Your task to perform on an android device: set the timer Image 0: 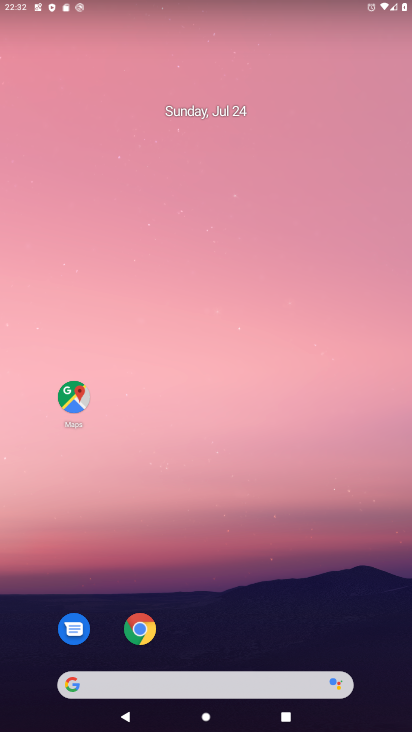
Step 0: click (203, 352)
Your task to perform on an android device: set the timer Image 1: 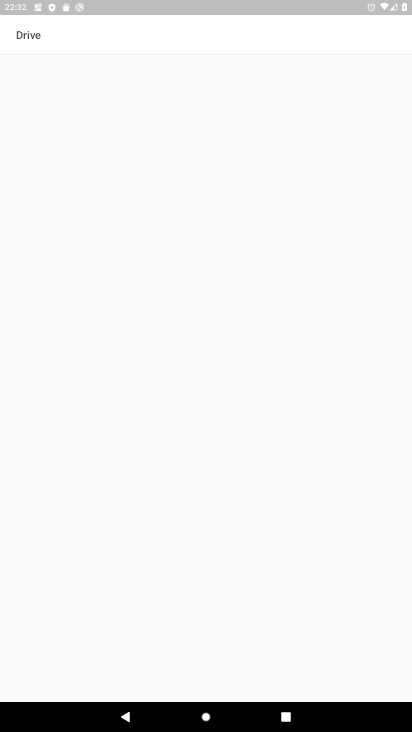
Step 1: press home button
Your task to perform on an android device: set the timer Image 2: 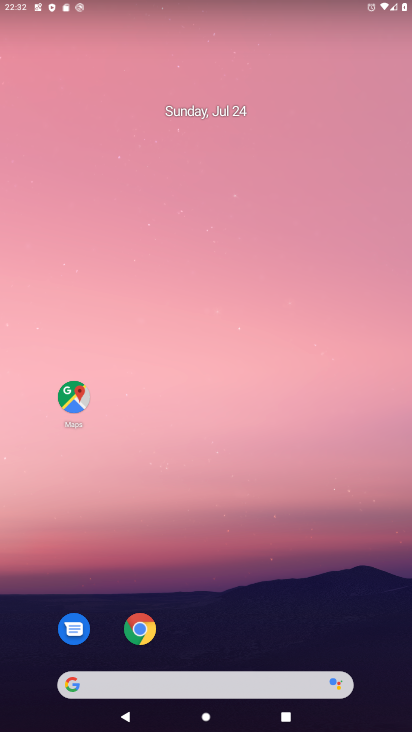
Step 2: drag from (191, 628) to (313, 93)
Your task to perform on an android device: set the timer Image 3: 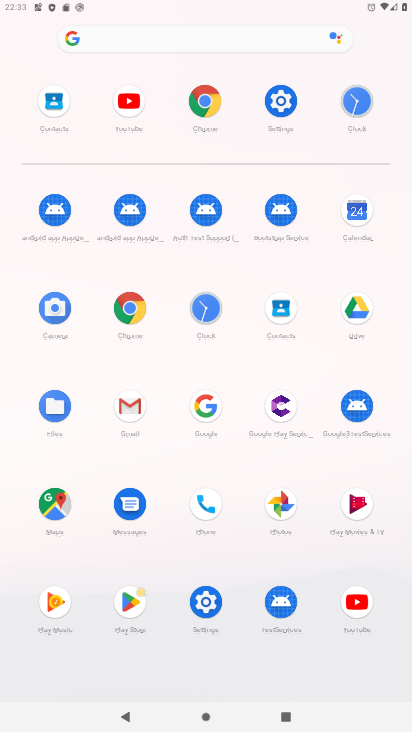
Step 3: click (203, 306)
Your task to perform on an android device: set the timer Image 4: 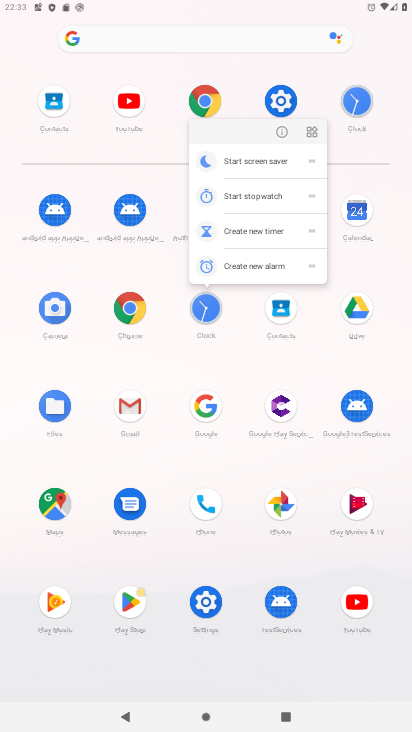
Step 4: click (282, 132)
Your task to perform on an android device: set the timer Image 5: 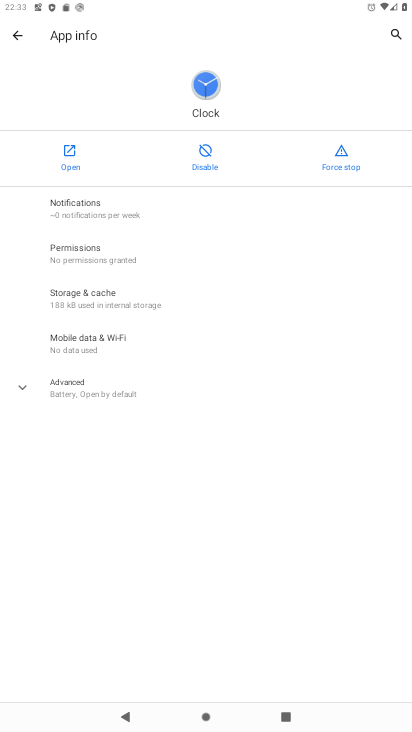
Step 5: click (64, 157)
Your task to perform on an android device: set the timer Image 6: 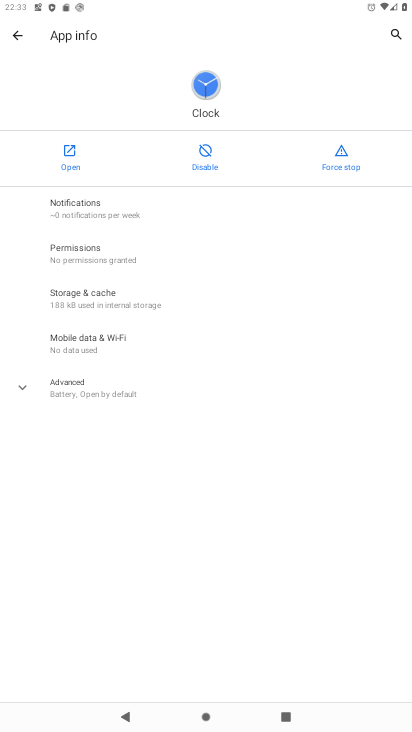
Step 6: click (64, 157)
Your task to perform on an android device: set the timer Image 7: 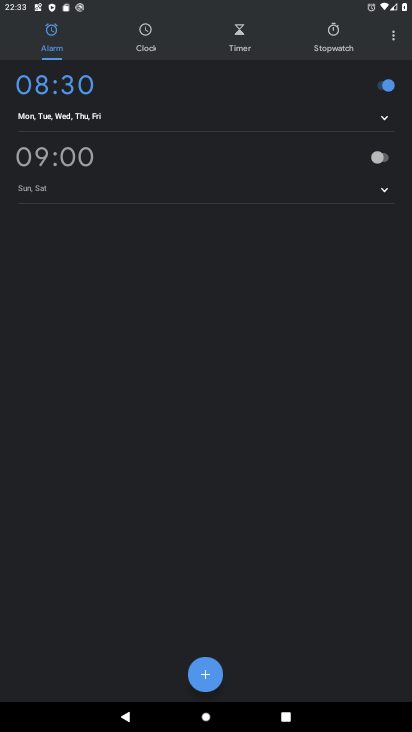
Step 7: drag from (204, 518) to (216, 279)
Your task to perform on an android device: set the timer Image 8: 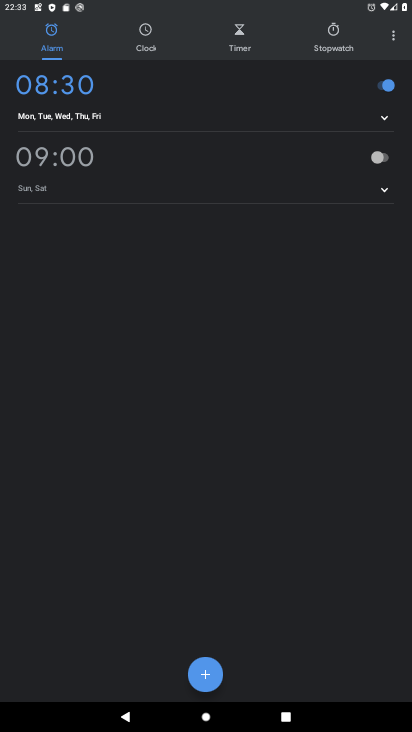
Step 8: click (247, 30)
Your task to perform on an android device: set the timer Image 9: 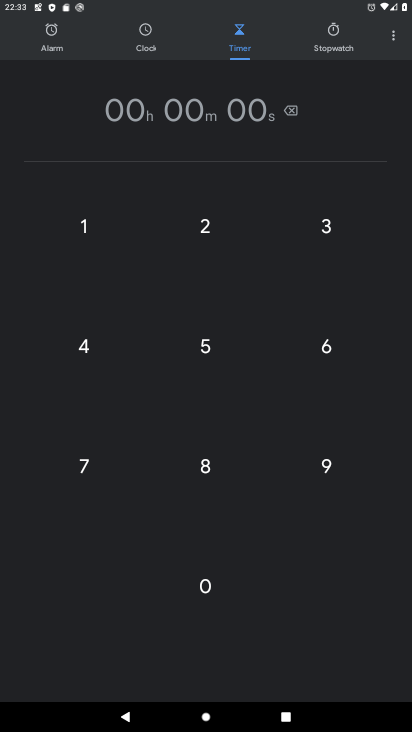
Step 9: click (208, 240)
Your task to perform on an android device: set the timer Image 10: 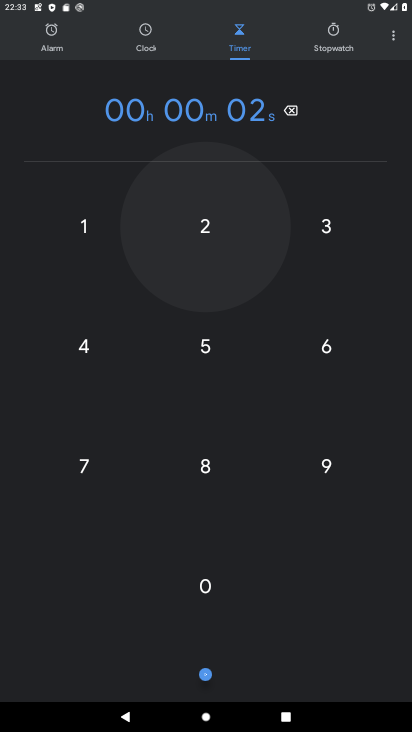
Step 10: click (338, 214)
Your task to perform on an android device: set the timer Image 11: 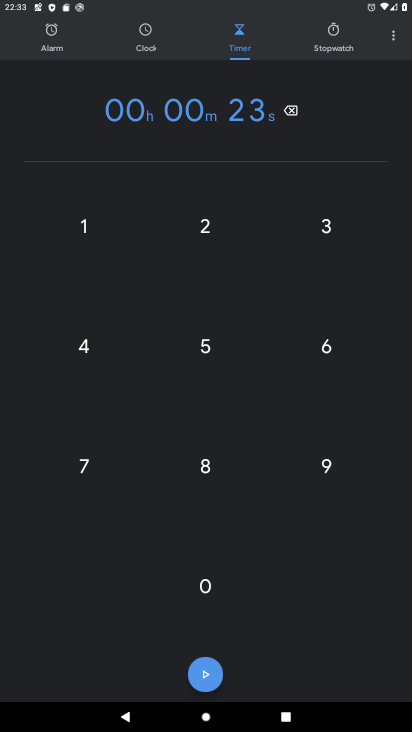
Step 11: click (206, 362)
Your task to perform on an android device: set the timer Image 12: 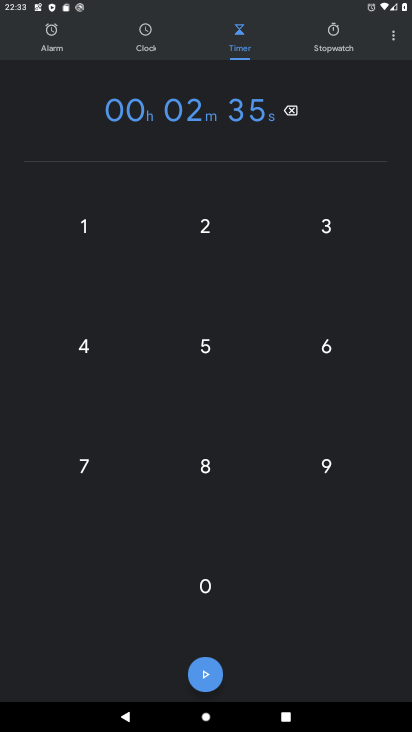
Step 12: click (204, 676)
Your task to perform on an android device: set the timer Image 13: 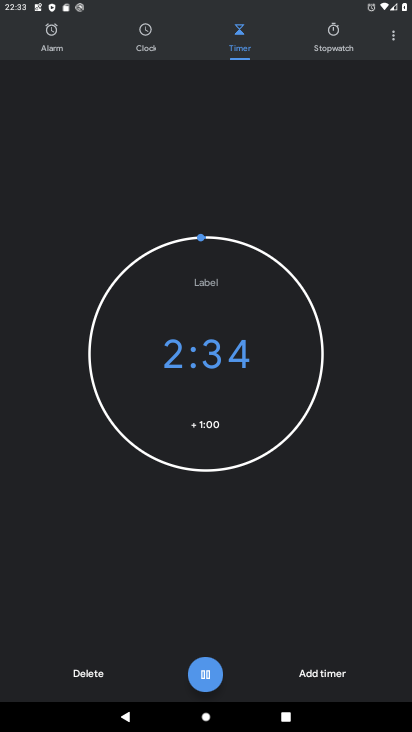
Step 13: task complete